Your task to perform on an android device: Go to eBay Image 0: 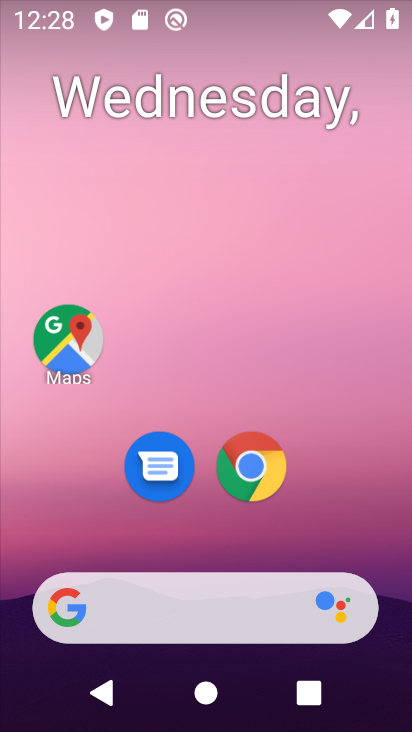
Step 0: click (257, 468)
Your task to perform on an android device: Go to eBay Image 1: 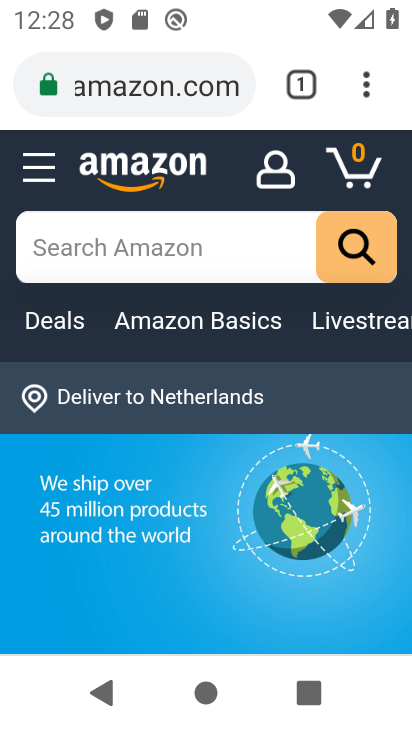
Step 1: click (211, 84)
Your task to perform on an android device: Go to eBay Image 2: 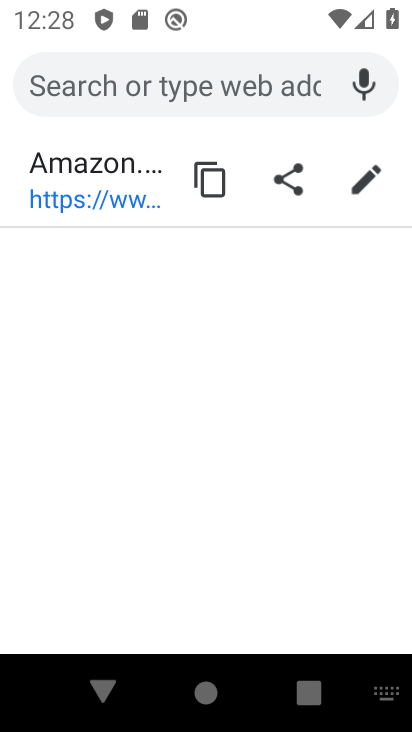
Step 2: type "eBay"
Your task to perform on an android device: Go to eBay Image 3: 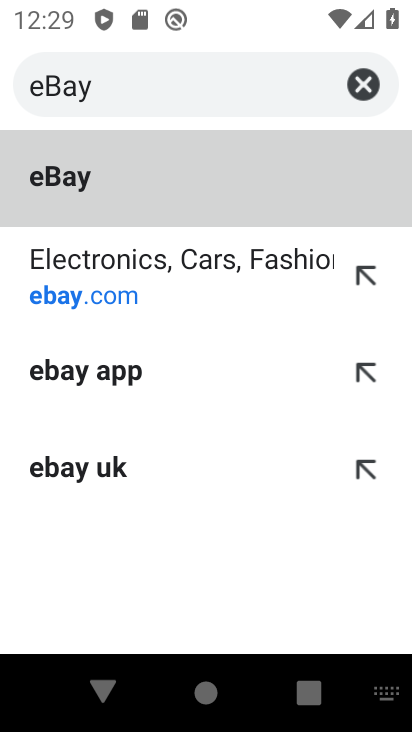
Step 3: click (73, 189)
Your task to perform on an android device: Go to eBay Image 4: 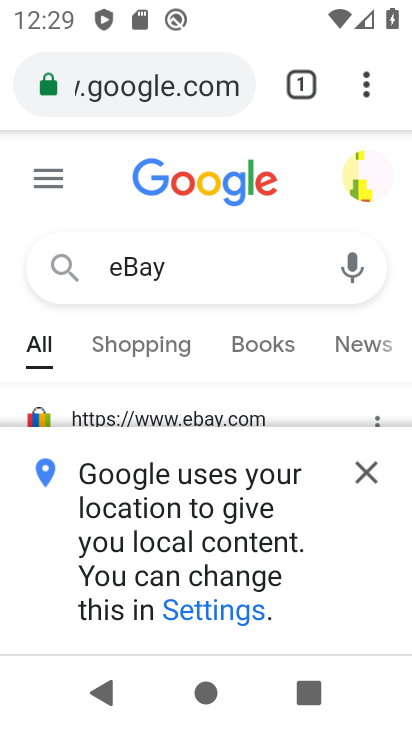
Step 4: click (359, 477)
Your task to perform on an android device: Go to eBay Image 5: 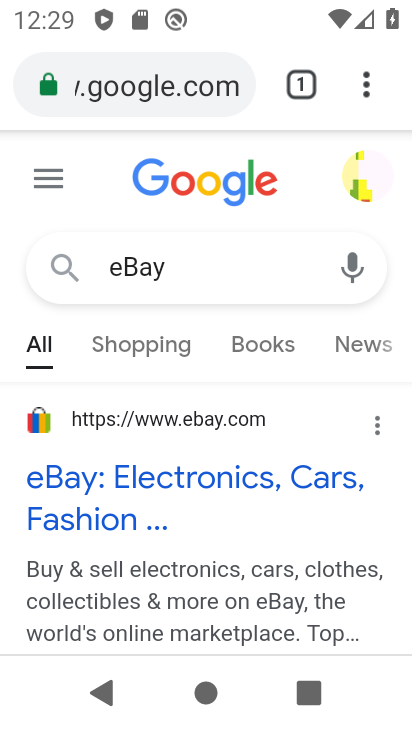
Step 5: click (133, 482)
Your task to perform on an android device: Go to eBay Image 6: 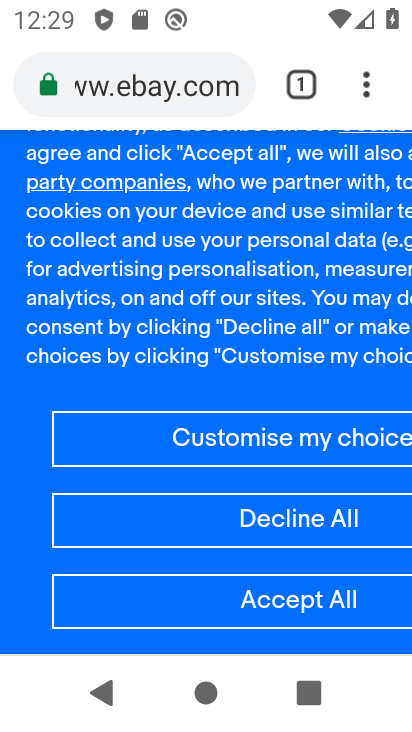
Step 6: task complete